Your task to perform on an android device: Open Youtube and go to "Your channel" Image 0: 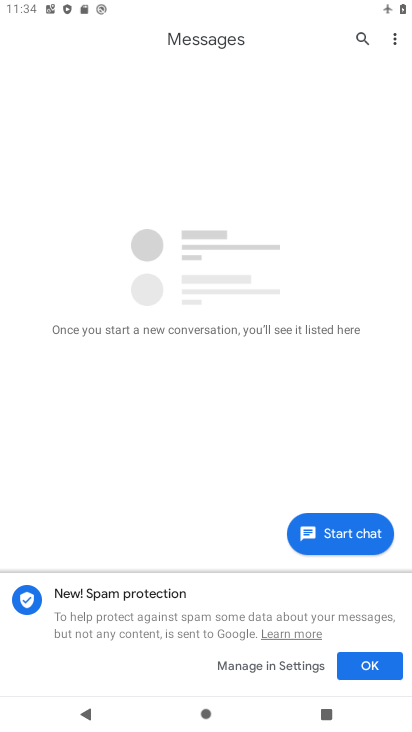
Step 0: press home button
Your task to perform on an android device: Open Youtube and go to "Your channel" Image 1: 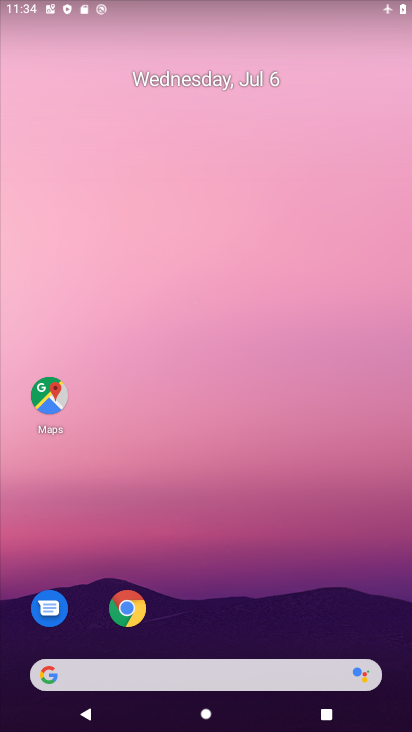
Step 1: drag from (167, 347) to (167, 224)
Your task to perform on an android device: Open Youtube and go to "Your channel" Image 2: 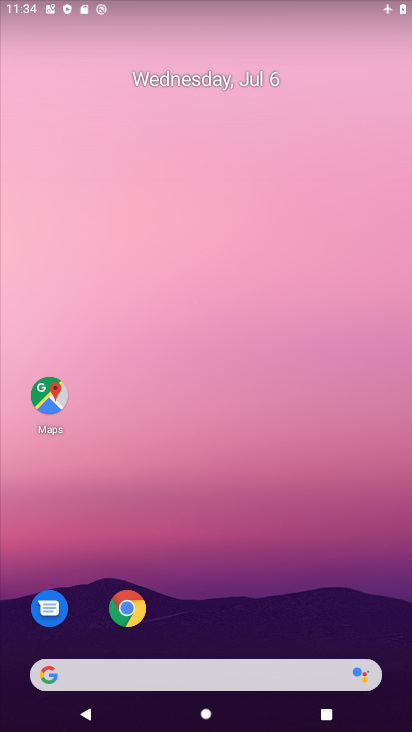
Step 2: drag from (222, 660) to (185, 135)
Your task to perform on an android device: Open Youtube and go to "Your channel" Image 3: 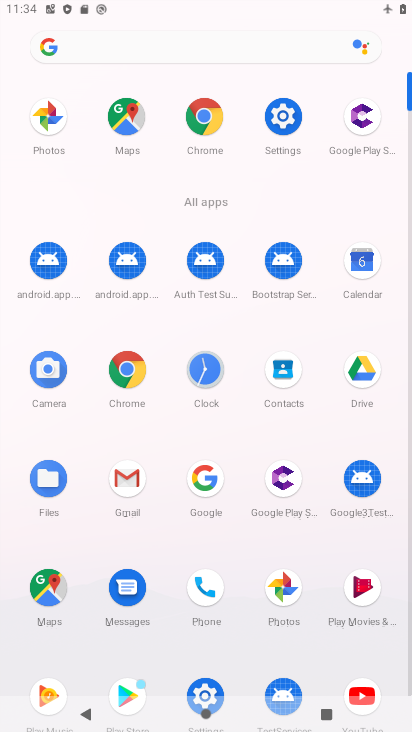
Step 3: click (359, 701)
Your task to perform on an android device: Open Youtube and go to "Your channel" Image 4: 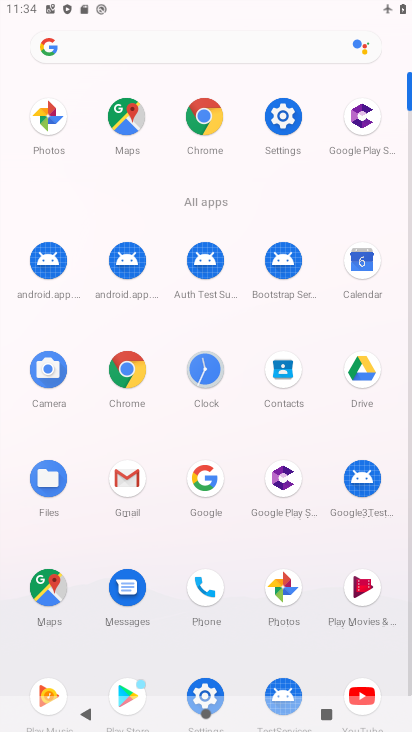
Step 4: click (360, 702)
Your task to perform on an android device: Open Youtube and go to "Your channel" Image 5: 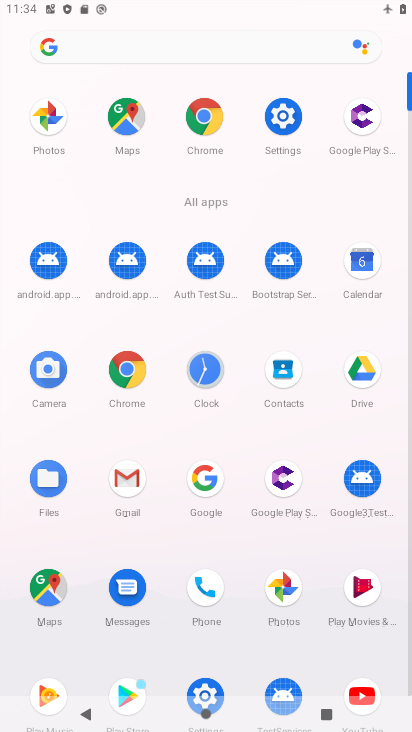
Step 5: click (370, 700)
Your task to perform on an android device: Open Youtube and go to "Your channel" Image 6: 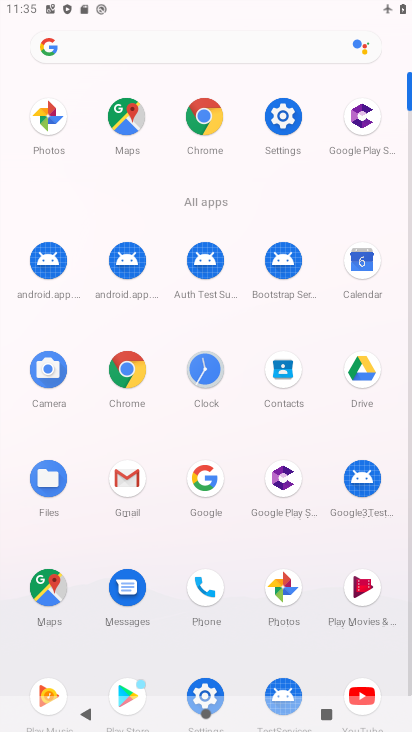
Step 6: click (356, 691)
Your task to perform on an android device: Open Youtube and go to "Your channel" Image 7: 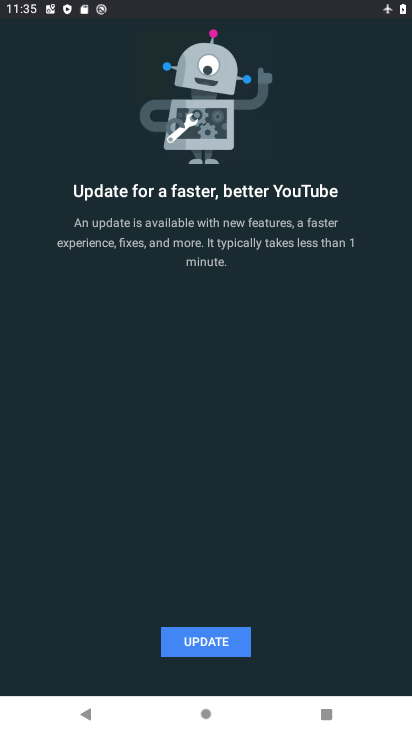
Step 7: click (188, 644)
Your task to perform on an android device: Open Youtube and go to "Your channel" Image 8: 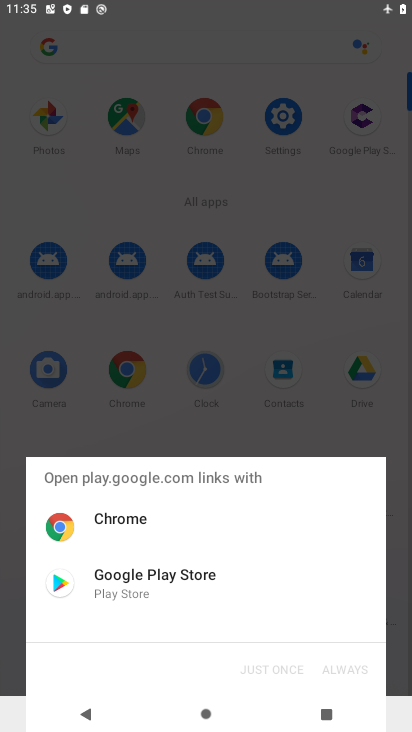
Step 8: drag from (162, 591) to (243, 591)
Your task to perform on an android device: Open Youtube and go to "Your channel" Image 9: 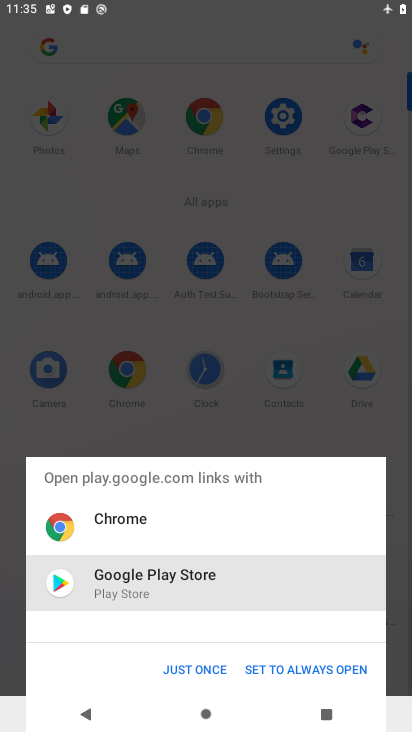
Step 9: click (195, 670)
Your task to perform on an android device: Open Youtube and go to "Your channel" Image 10: 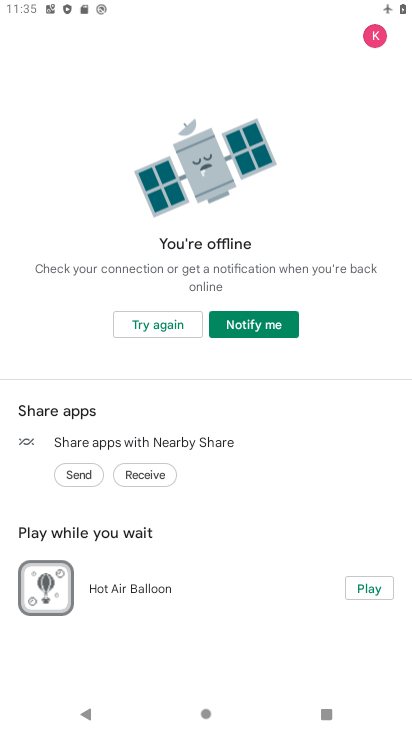
Step 10: click (167, 324)
Your task to perform on an android device: Open Youtube and go to "Your channel" Image 11: 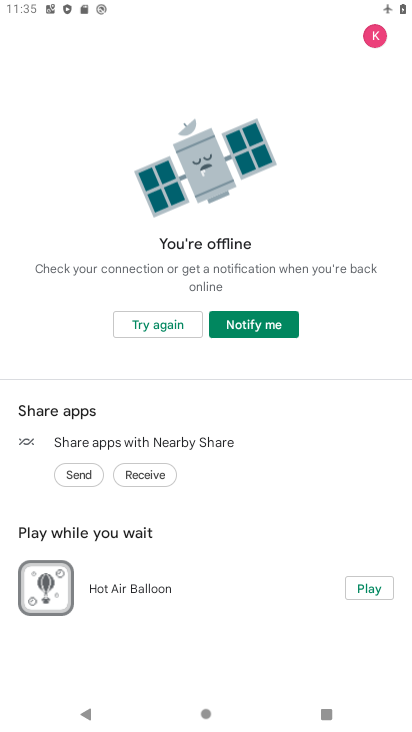
Step 11: task complete